Your task to perform on an android device: Clear the shopping cart on walmart. Add sony triple a to the cart on walmart, then select checkout. Image 0: 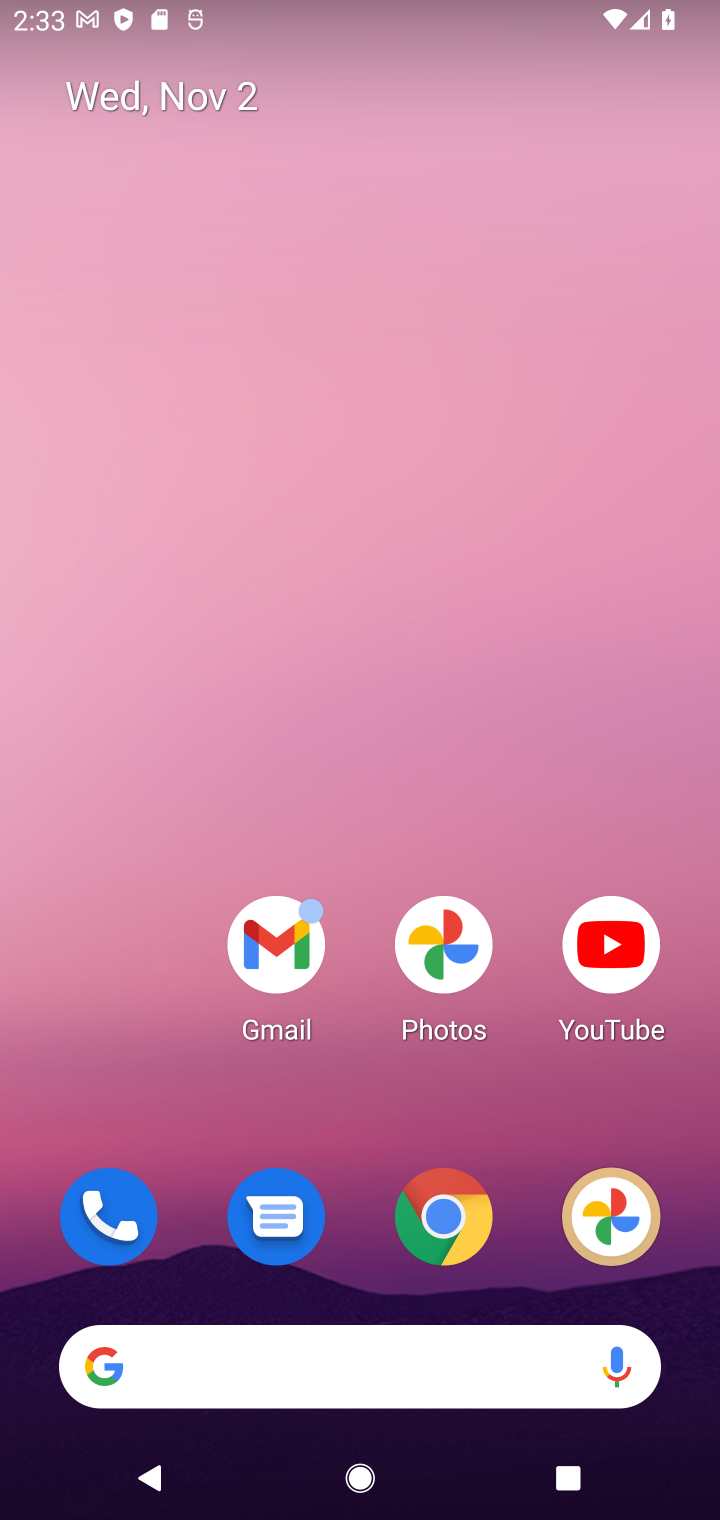
Step 0: click (449, 1202)
Your task to perform on an android device: Clear the shopping cart on walmart. Add sony triple a to the cart on walmart, then select checkout. Image 1: 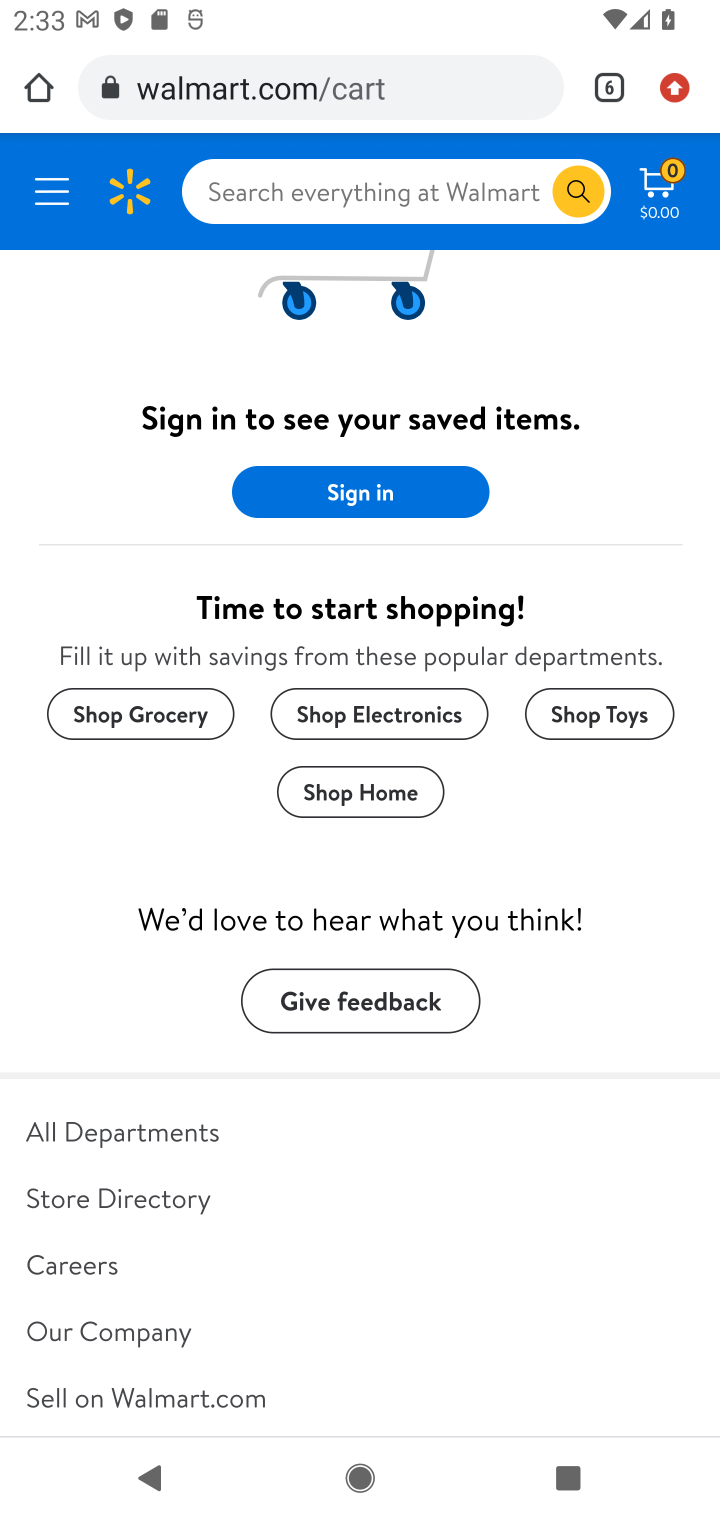
Step 1: click (292, 200)
Your task to perform on an android device: Clear the shopping cart on walmart. Add sony triple a to the cart on walmart, then select checkout. Image 2: 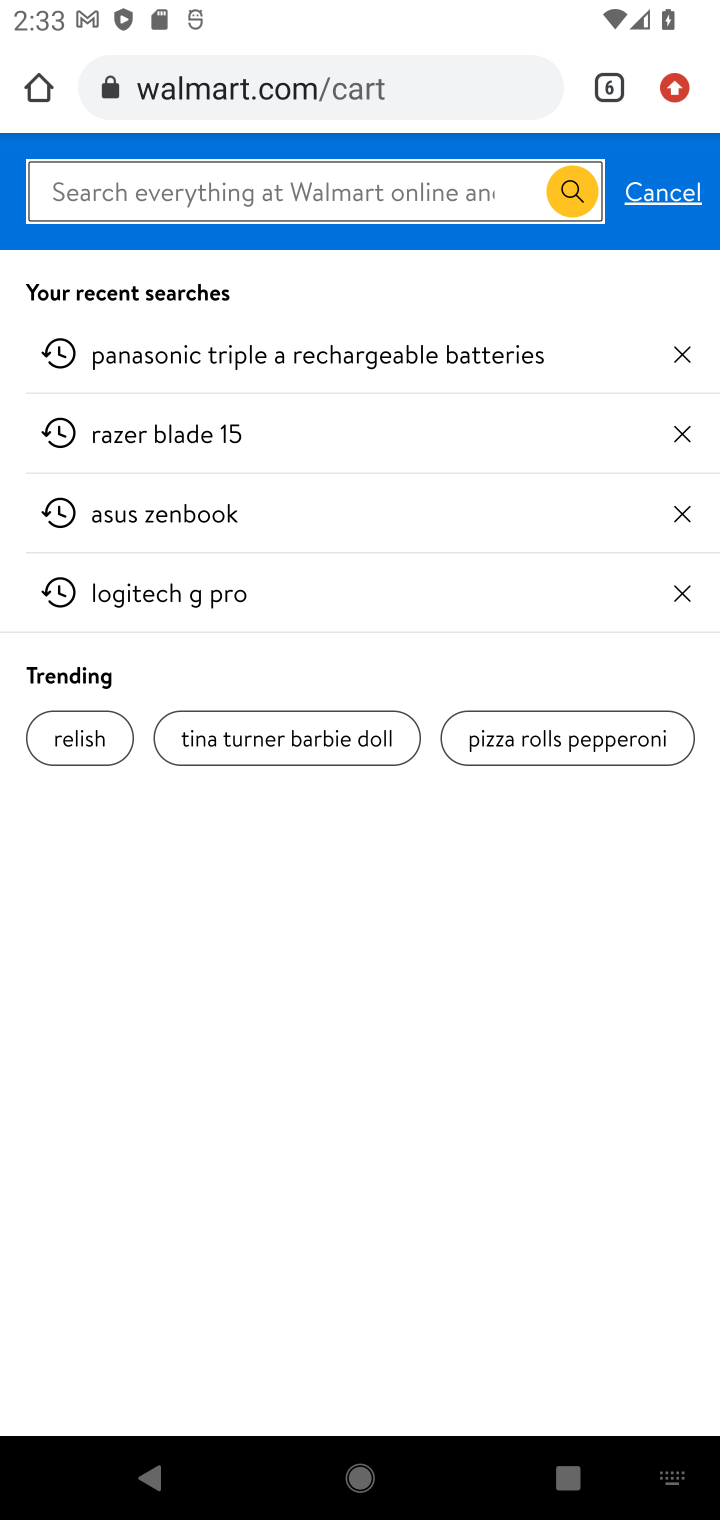
Step 2: type "sony triple a"
Your task to perform on an android device: Clear the shopping cart on walmart. Add sony triple a to the cart on walmart, then select checkout. Image 3: 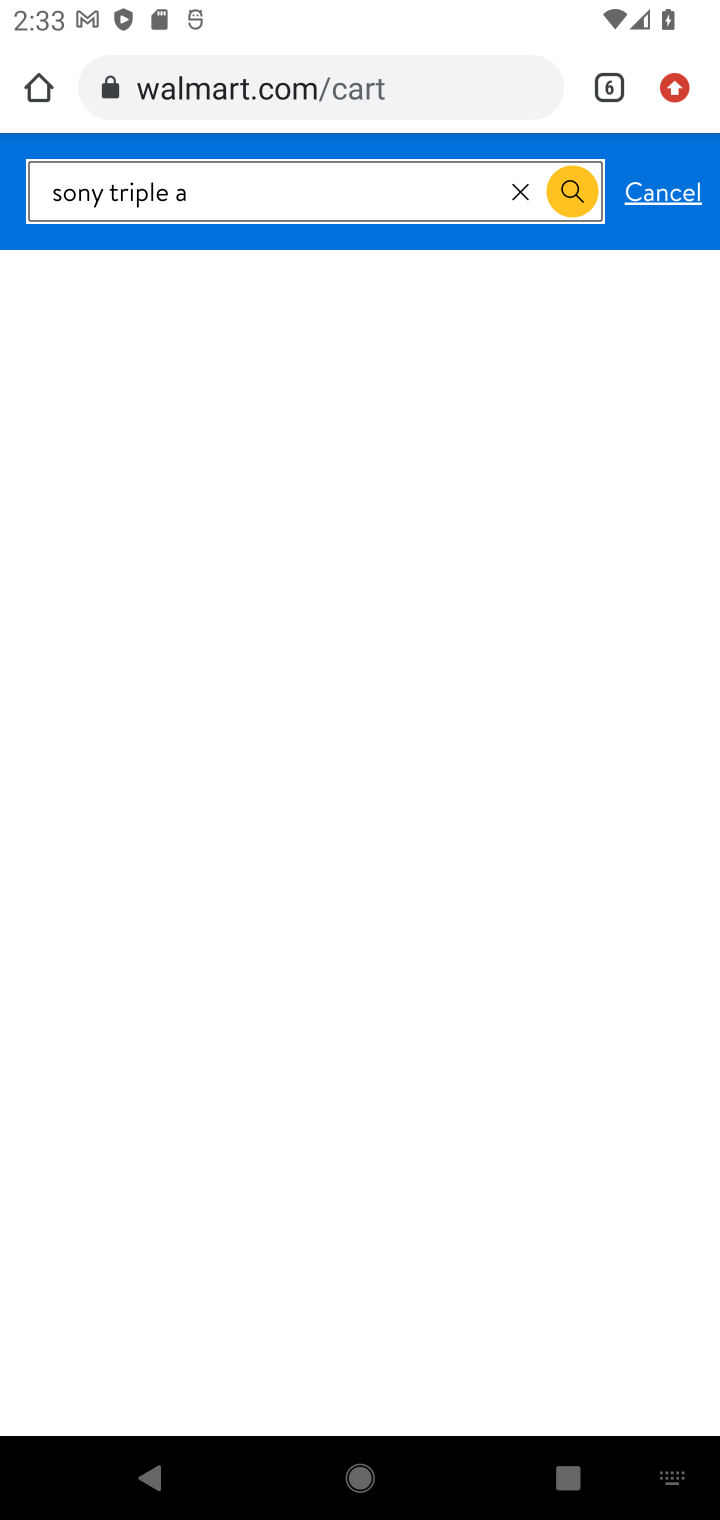
Step 3: type " battery"
Your task to perform on an android device: Clear the shopping cart on walmart. Add sony triple a to the cart on walmart, then select checkout. Image 4: 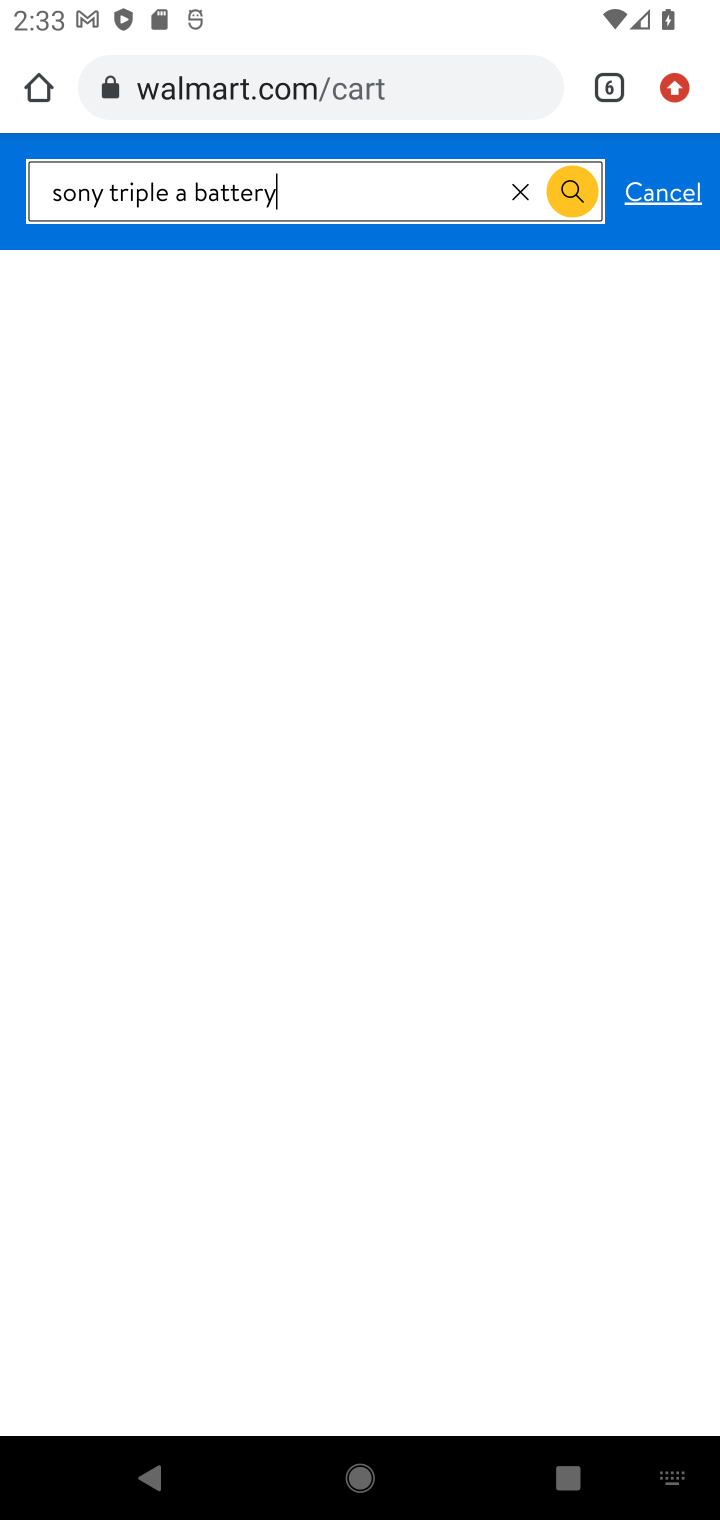
Step 4: click (570, 190)
Your task to perform on an android device: Clear the shopping cart on walmart. Add sony triple a to the cart on walmart, then select checkout. Image 5: 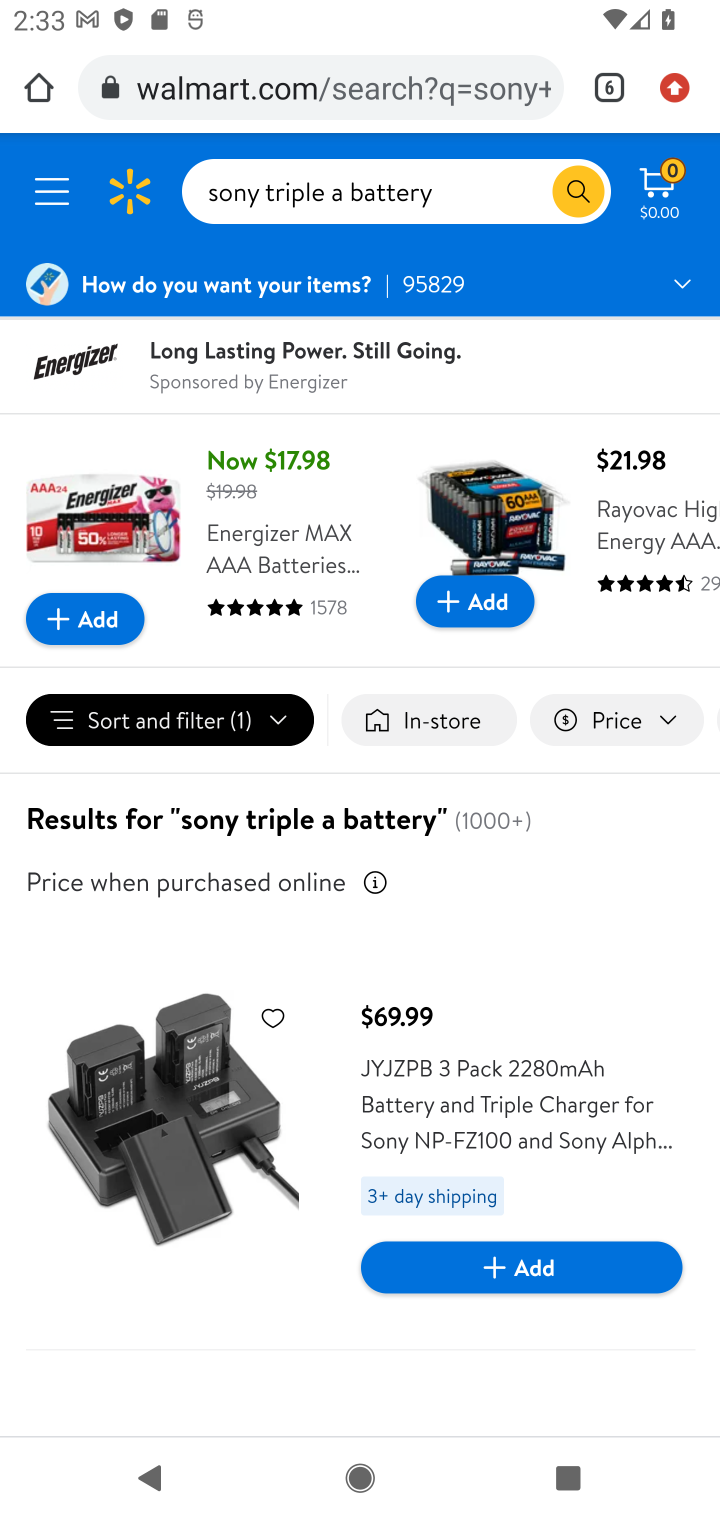
Step 5: click (542, 1276)
Your task to perform on an android device: Clear the shopping cart on walmart. Add sony triple a to the cart on walmart, then select checkout. Image 6: 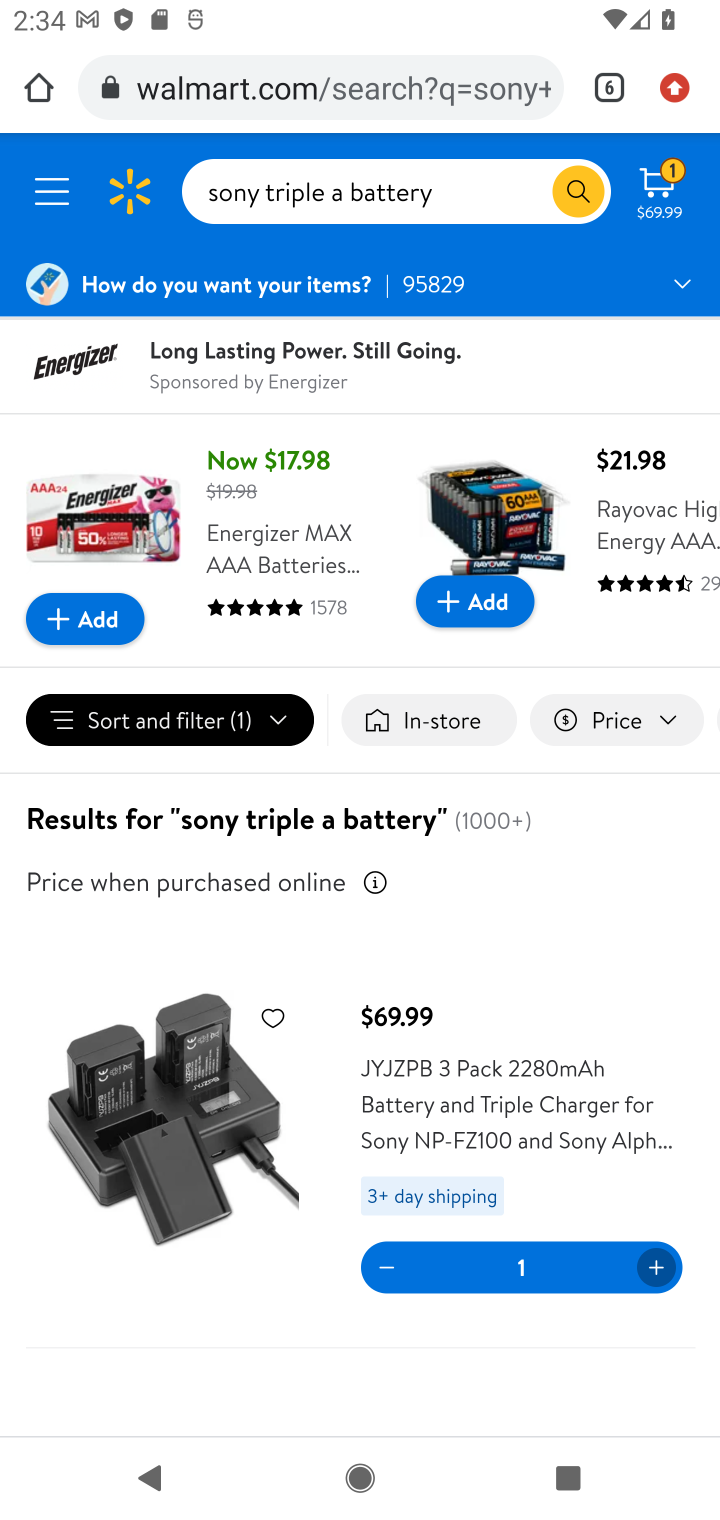
Step 6: click (667, 187)
Your task to perform on an android device: Clear the shopping cart on walmart. Add sony triple a to the cart on walmart, then select checkout. Image 7: 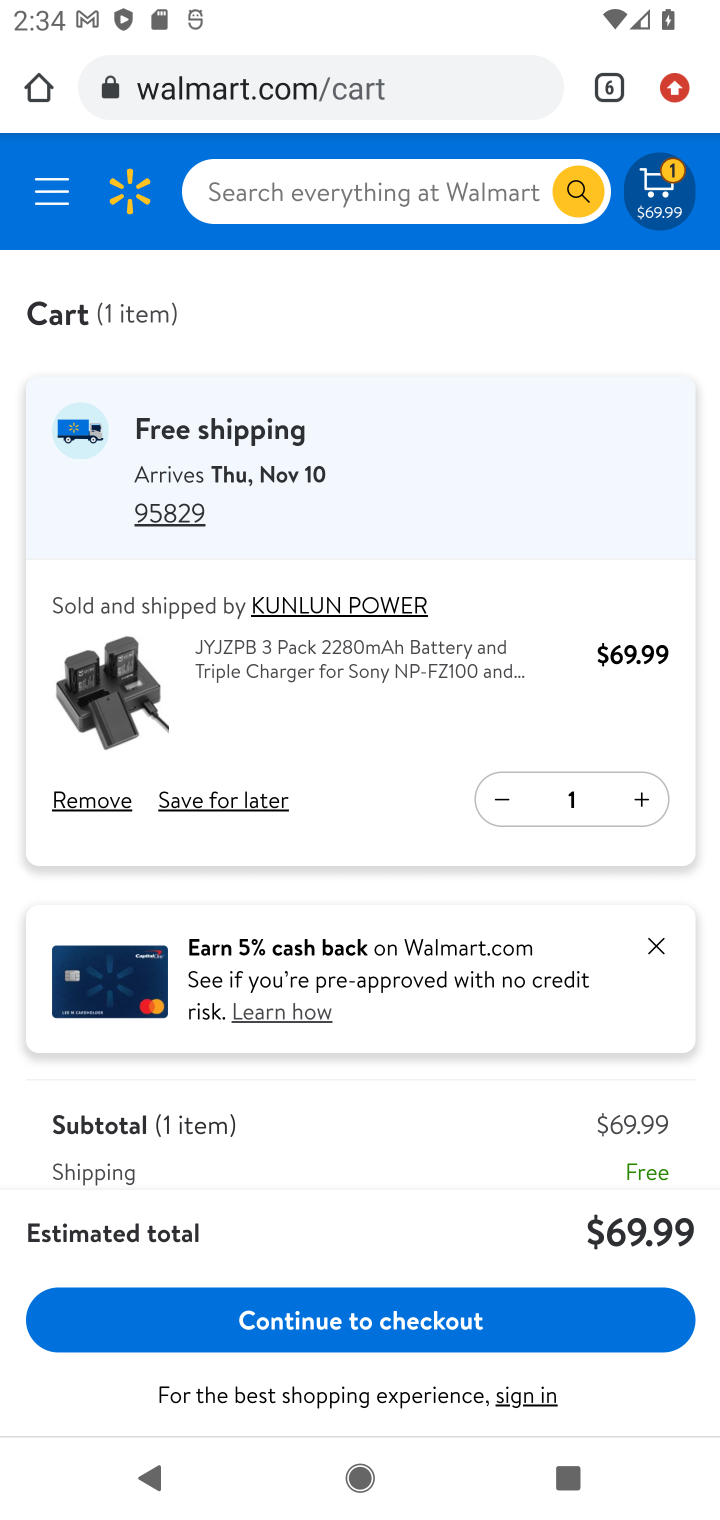
Step 7: click (366, 1323)
Your task to perform on an android device: Clear the shopping cart on walmart. Add sony triple a to the cart on walmart, then select checkout. Image 8: 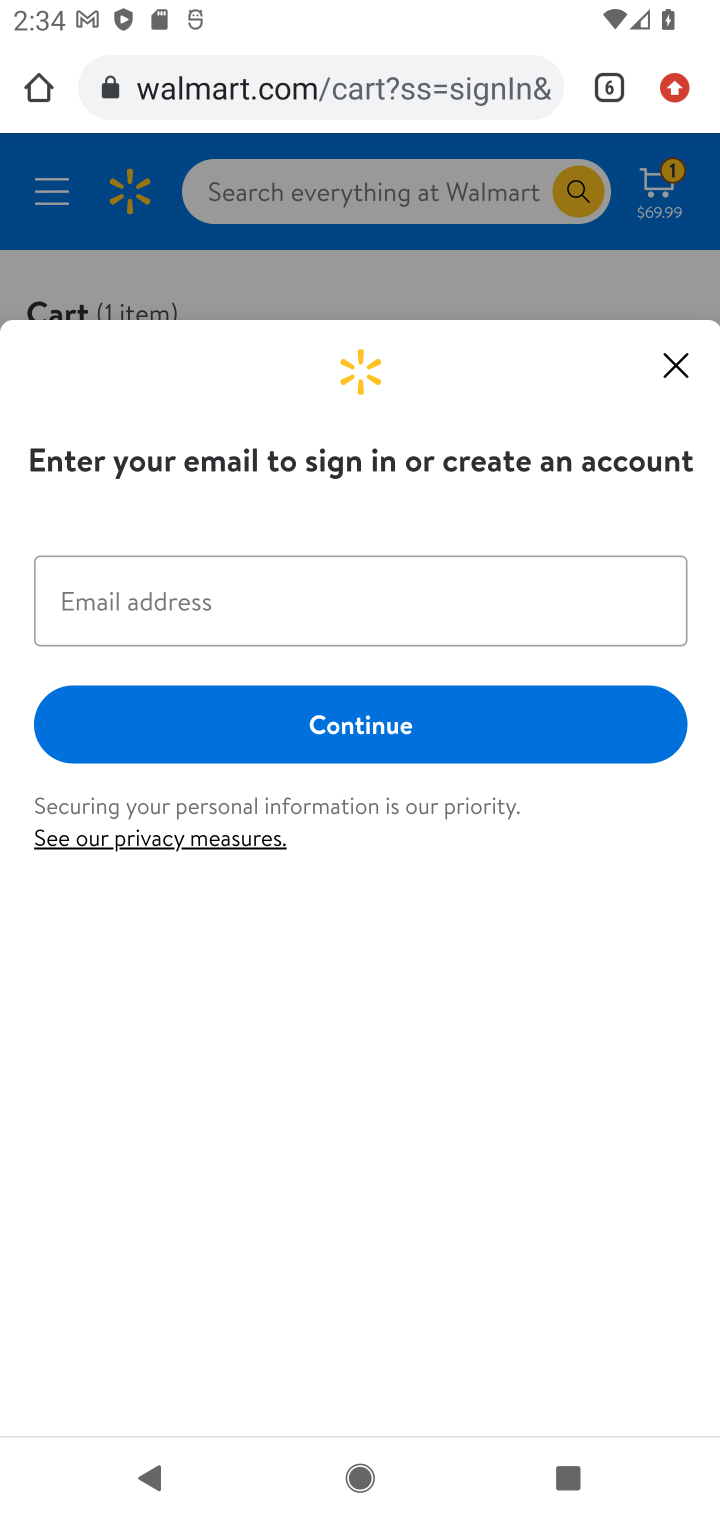
Step 8: task complete